Your task to perform on an android device: What's on my calendar today? Image 0: 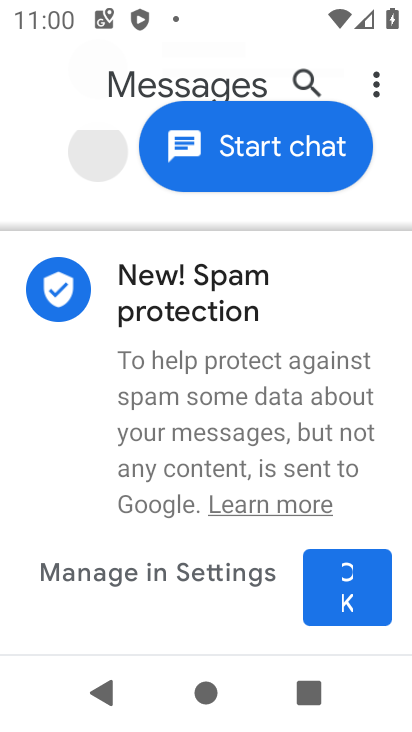
Step 0: drag from (296, 390) to (318, 357)
Your task to perform on an android device: What's on my calendar today? Image 1: 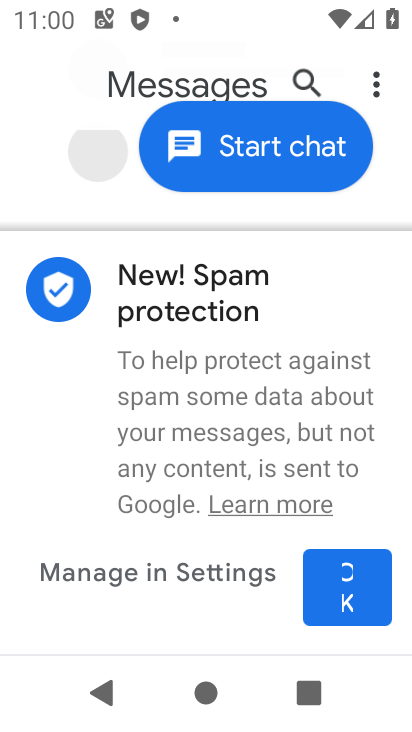
Step 1: press home button
Your task to perform on an android device: What's on my calendar today? Image 2: 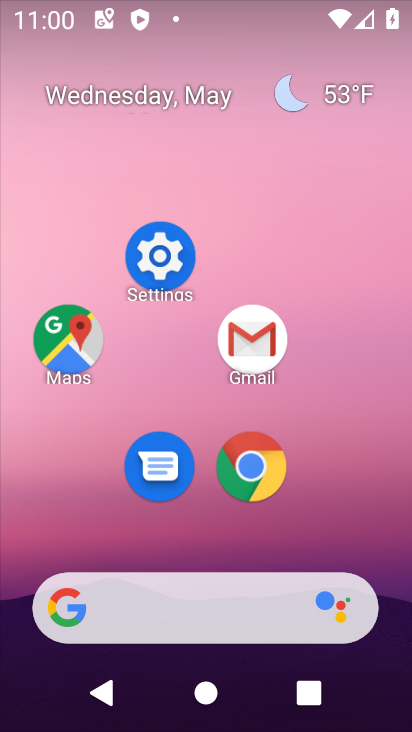
Step 2: drag from (187, 547) to (203, 313)
Your task to perform on an android device: What's on my calendar today? Image 3: 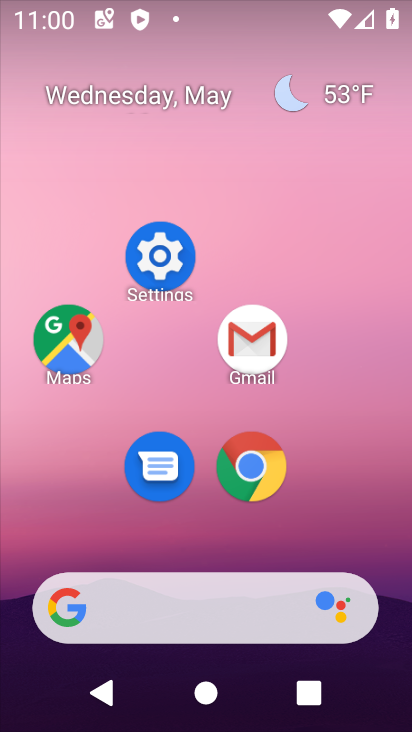
Step 3: drag from (205, 531) to (229, 81)
Your task to perform on an android device: What's on my calendar today? Image 4: 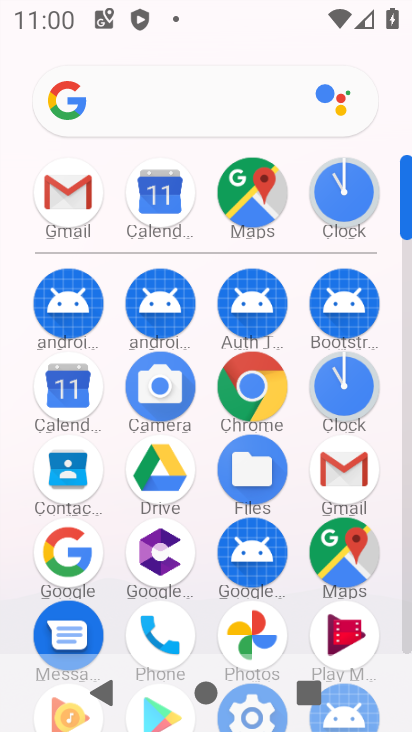
Step 4: click (60, 393)
Your task to perform on an android device: What's on my calendar today? Image 5: 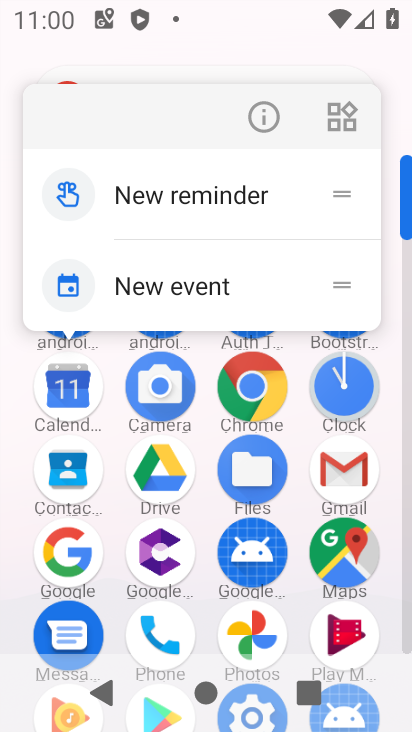
Step 5: click (258, 117)
Your task to perform on an android device: What's on my calendar today? Image 6: 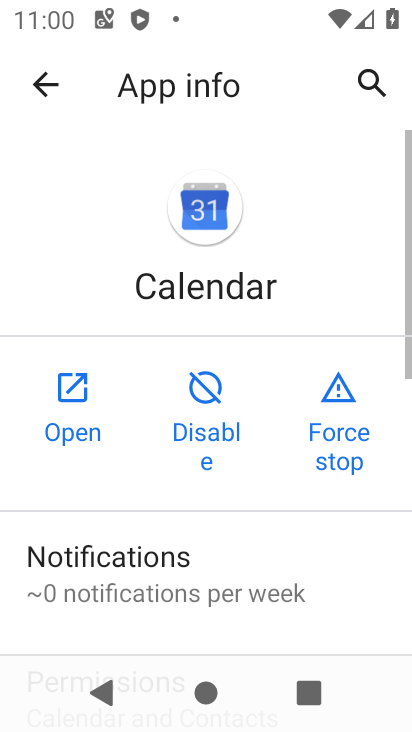
Step 6: click (64, 413)
Your task to perform on an android device: What's on my calendar today? Image 7: 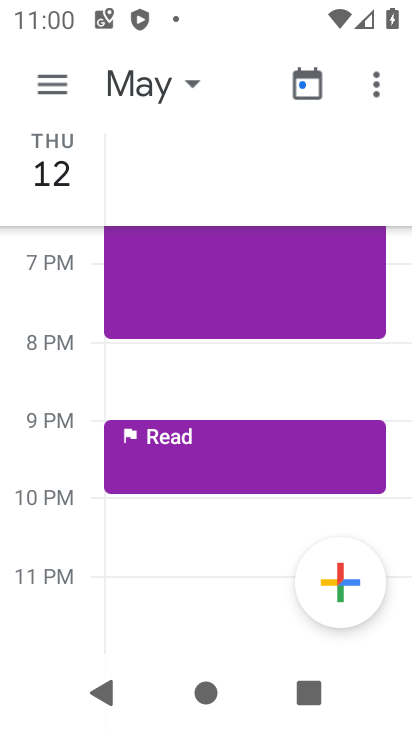
Step 7: drag from (216, 357) to (237, 545)
Your task to perform on an android device: What's on my calendar today? Image 8: 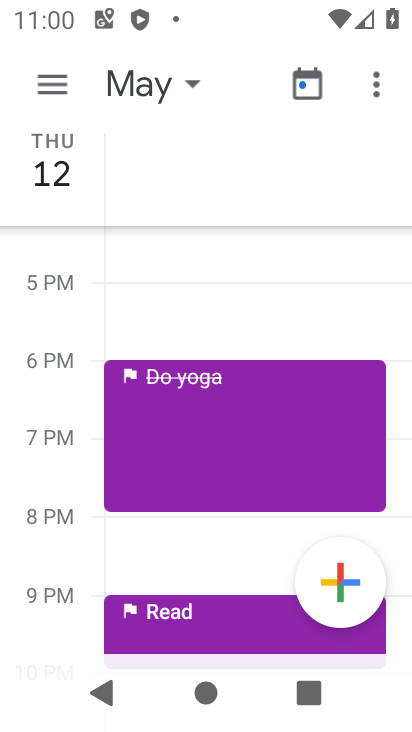
Step 8: drag from (233, 477) to (242, 275)
Your task to perform on an android device: What's on my calendar today? Image 9: 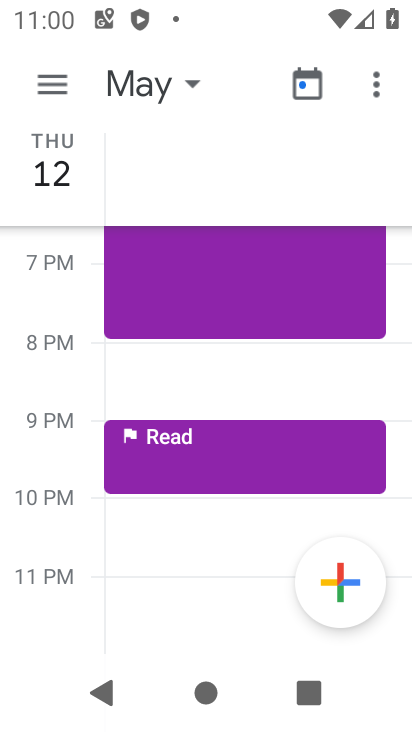
Step 9: click (167, 91)
Your task to perform on an android device: What's on my calendar today? Image 10: 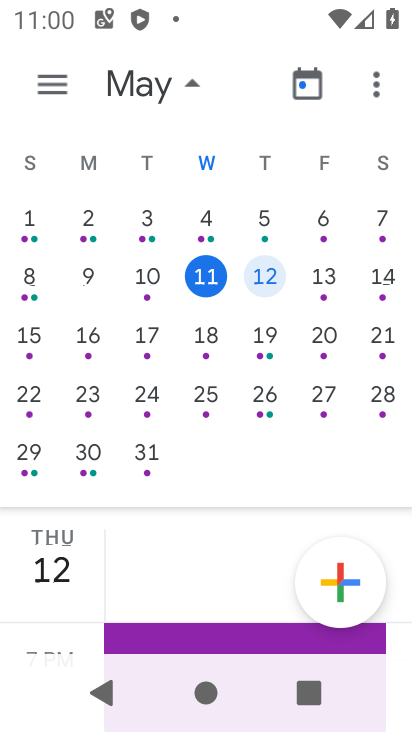
Step 10: click (186, 84)
Your task to perform on an android device: What's on my calendar today? Image 11: 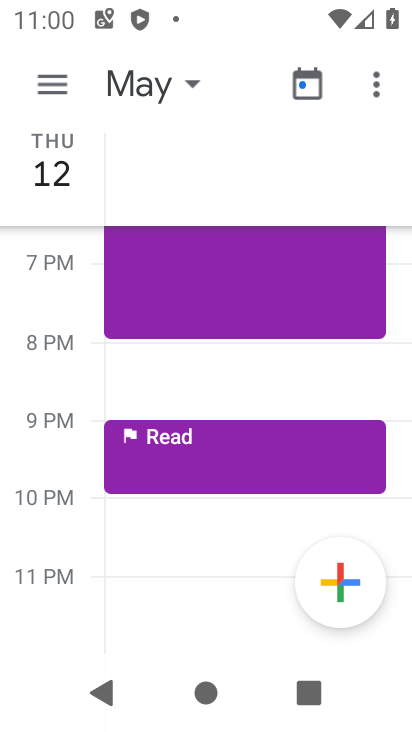
Step 11: click (157, 79)
Your task to perform on an android device: What's on my calendar today? Image 12: 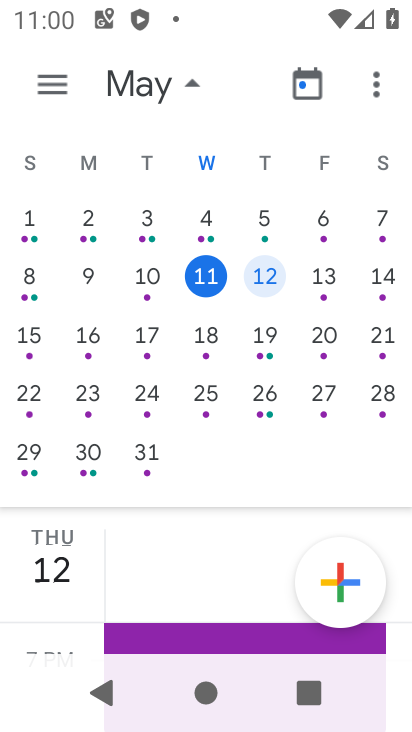
Step 12: click (206, 276)
Your task to perform on an android device: What's on my calendar today? Image 13: 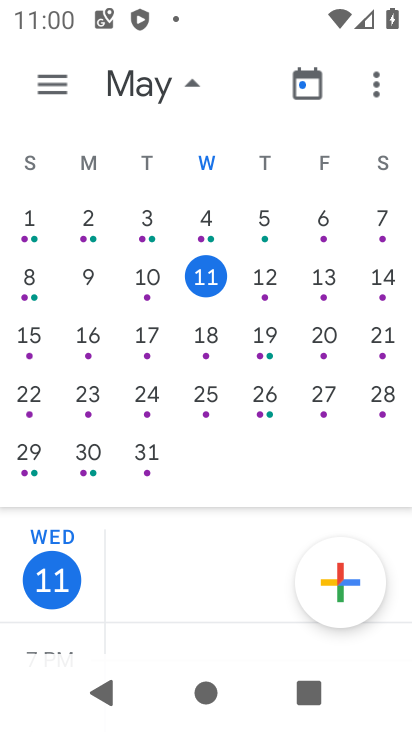
Step 13: task complete